Your task to perform on an android device: empty trash in google photos Image 0: 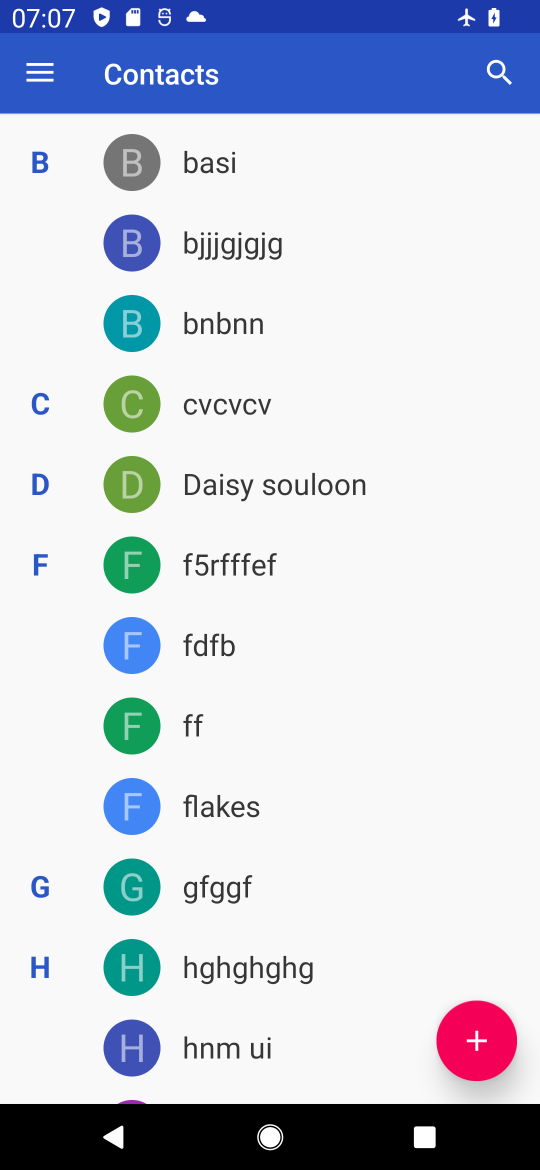
Step 0: press home button
Your task to perform on an android device: empty trash in google photos Image 1: 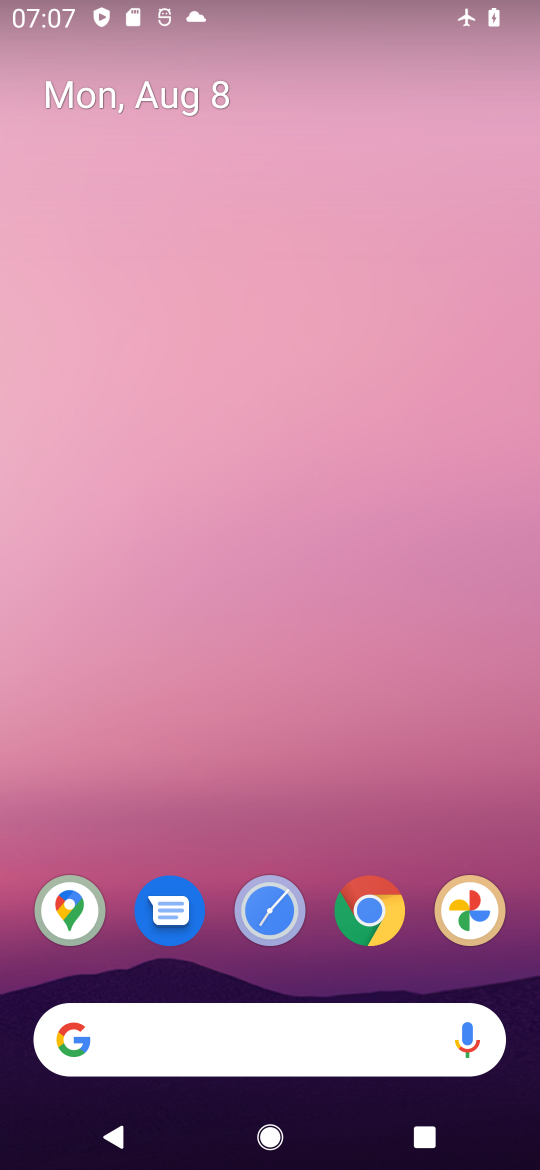
Step 1: drag from (196, 1041) to (289, 511)
Your task to perform on an android device: empty trash in google photos Image 2: 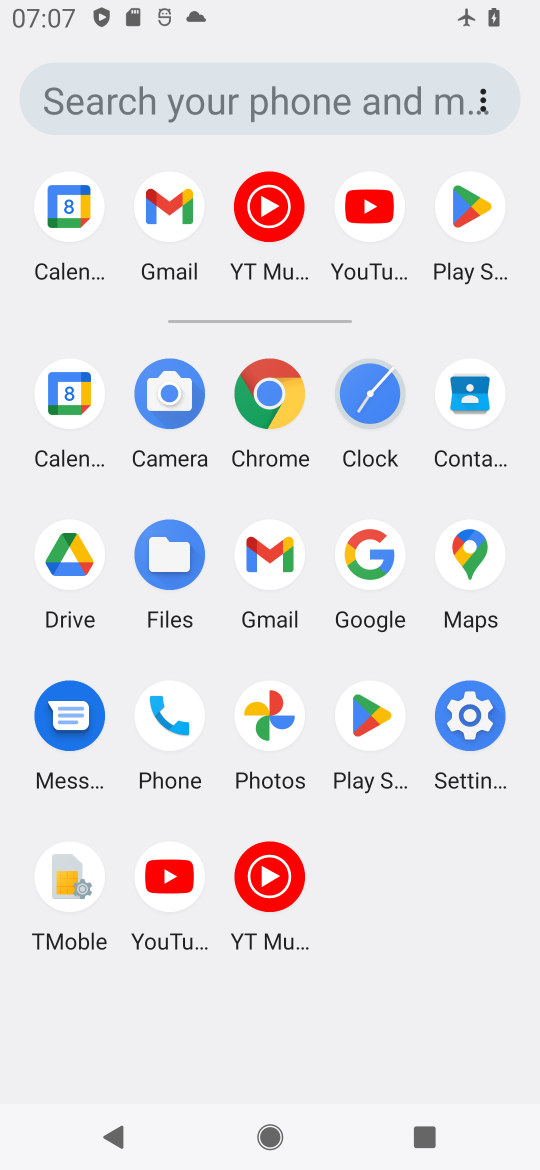
Step 2: click (271, 712)
Your task to perform on an android device: empty trash in google photos Image 3: 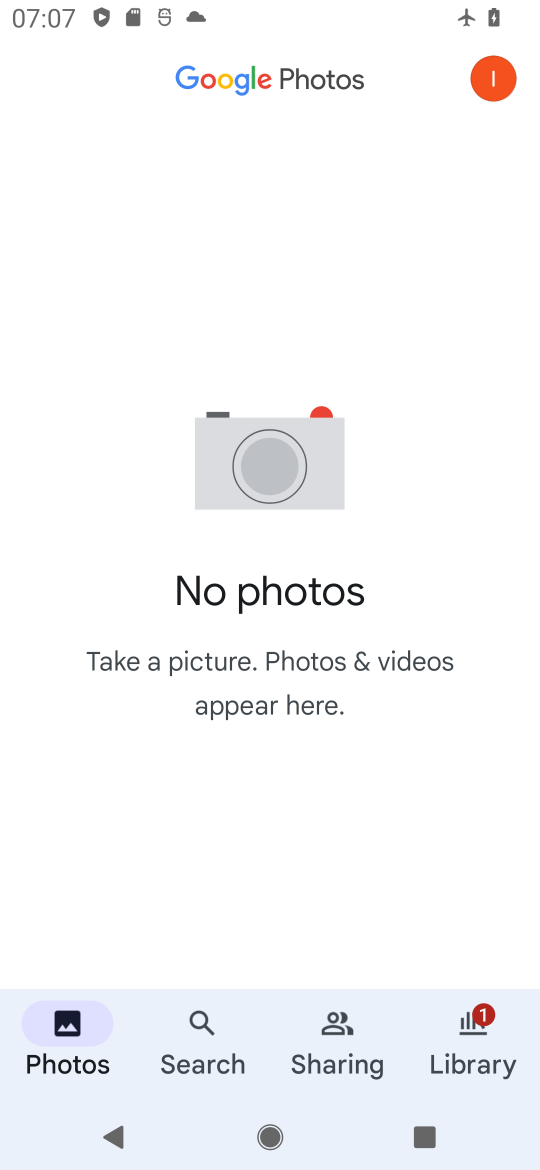
Step 3: click (472, 1022)
Your task to perform on an android device: empty trash in google photos Image 4: 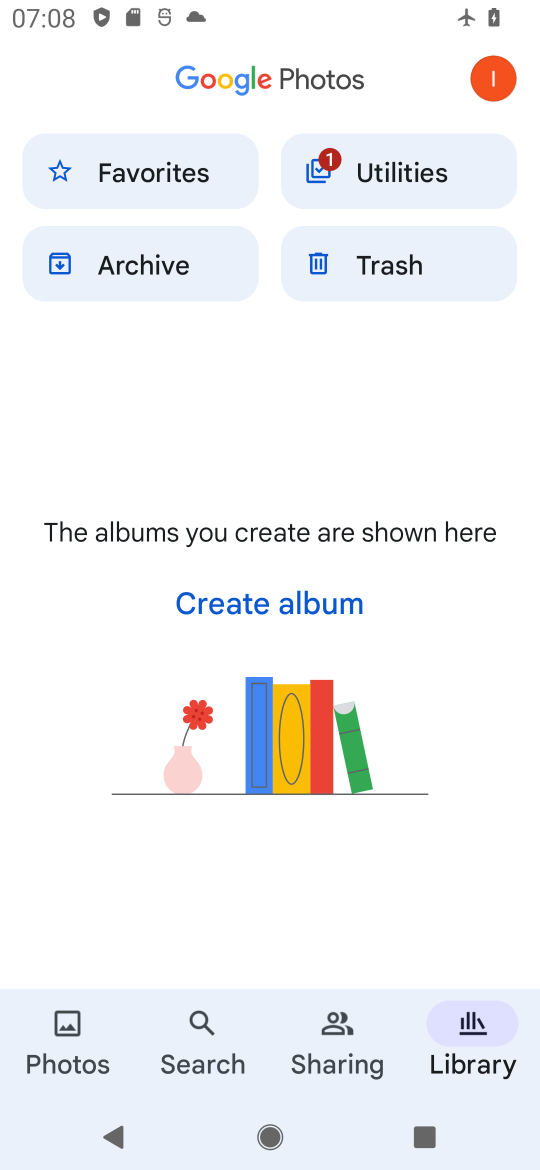
Step 4: click (390, 269)
Your task to perform on an android device: empty trash in google photos Image 5: 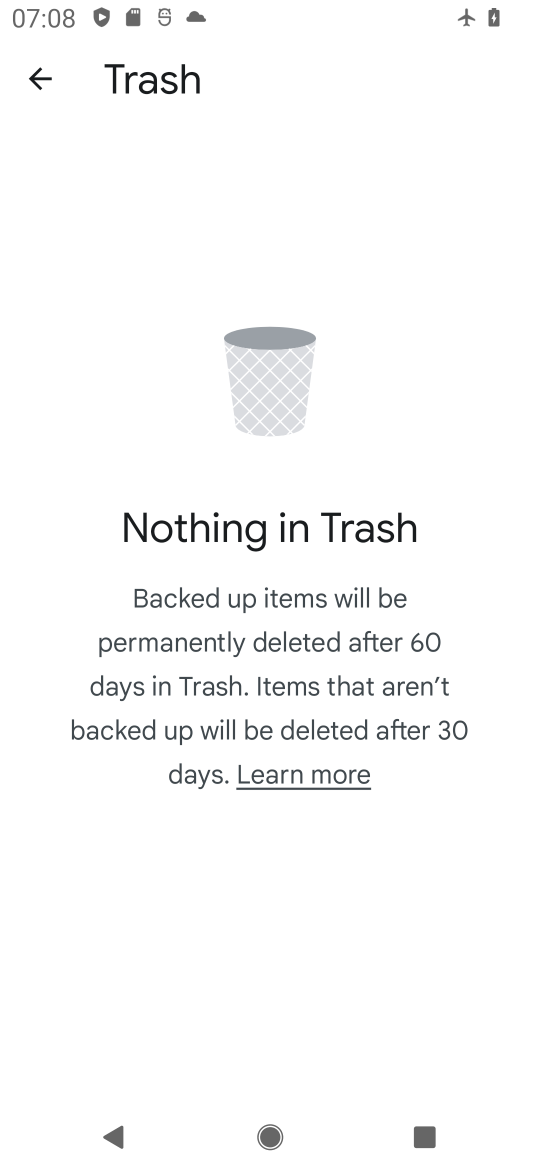
Step 5: task complete